Your task to perform on an android device: turn on priority inbox in the gmail app Image 0: 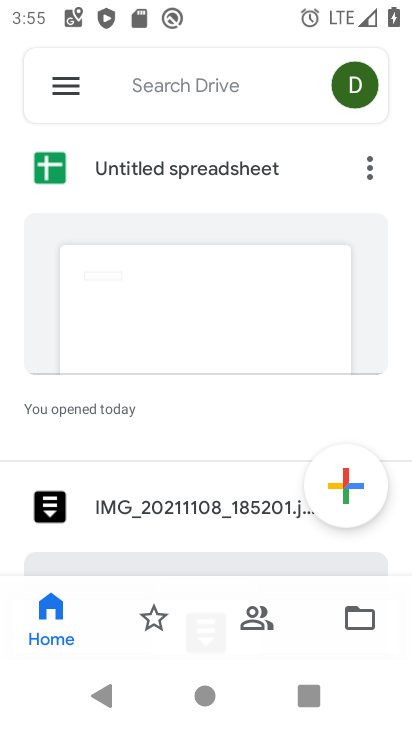
Step 0: press home button
Your task to perform on an android device: turn on priority inbox in the gmail app Image 1: 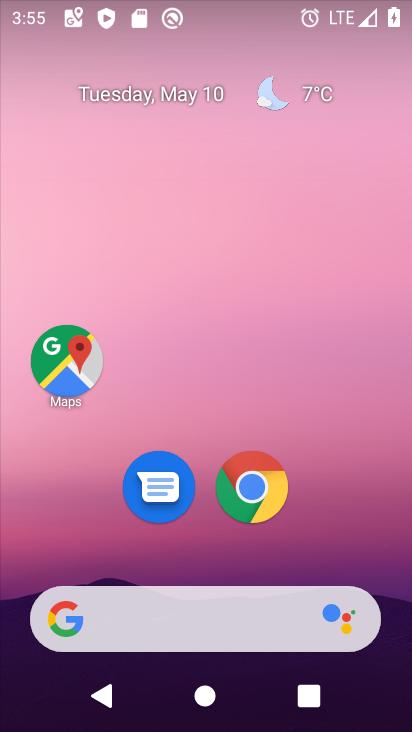
Step 1: drag from (328, 535) to (313, 161)
Your task to perform on an android device: turn on priority inbox in the gmail app Image 2: 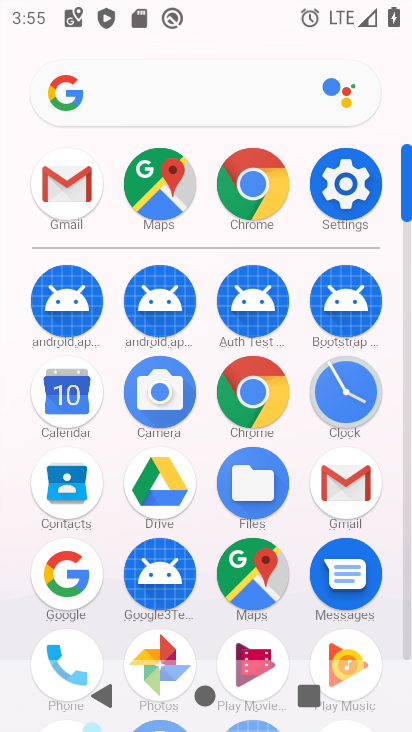
Step 2: click (77, 173)
Your task to perform on an android device: turn on priority inbox in the gmail app Image 3: 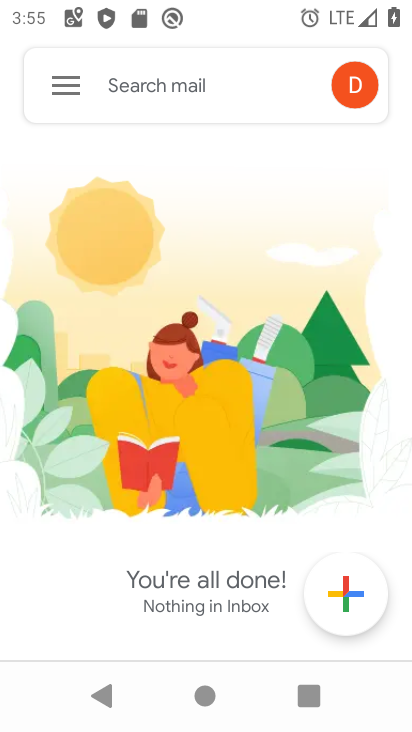
Step 3: click (65, 78)
Your task to perform on an android device: turn on priority inbox in the gmail app Image 4: 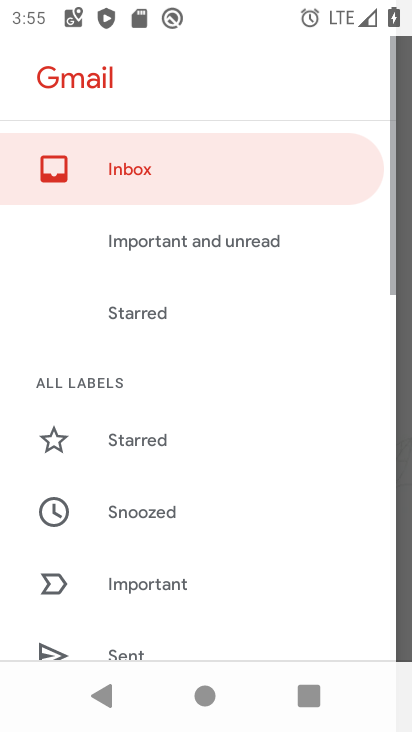
Step 4: drag from (97, 555) to (247, 135)
Your task to perform on an android device: turn on priority inbox in the gmail app Image 5: 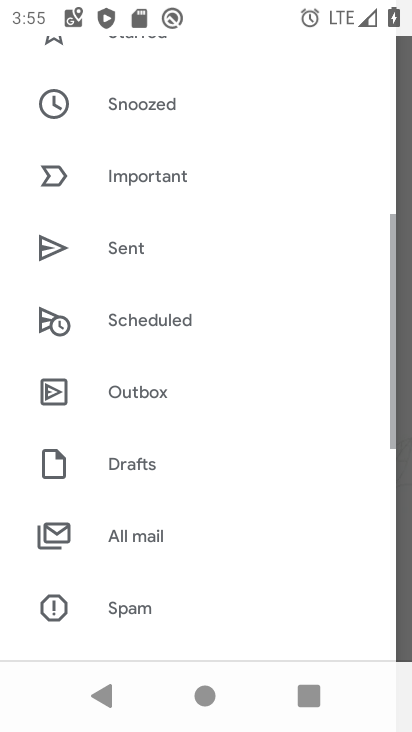
Step 5: drag from (204, 537) to (308, 181)
Your task to perform on an android device: turn on priority inbox in the gmail app Image 6: 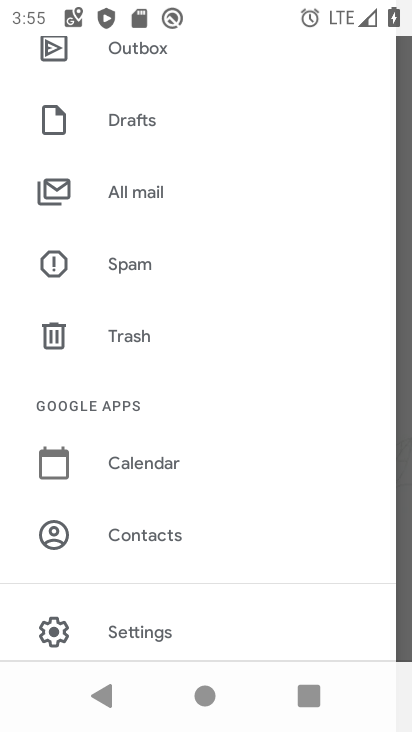
Step 6: drag from (255, 539) to (295, 195)
Your task to perform on an android device: turn on priority inbox in the gmail app Image 7: 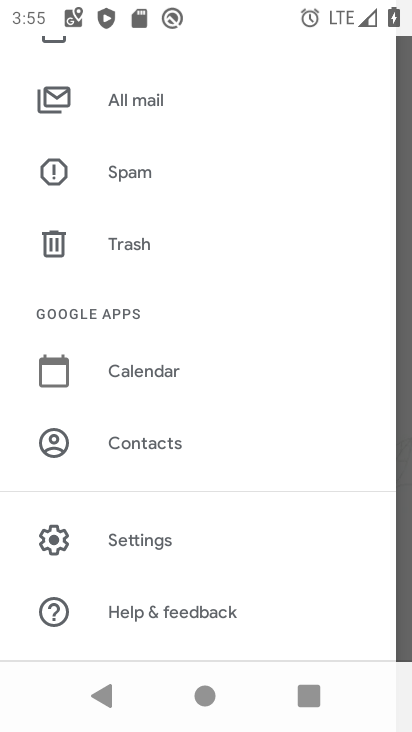
Step 7: click (187, 533)
Your task to perform on an android device: turn on priority inbox in the gmail app Image 8: 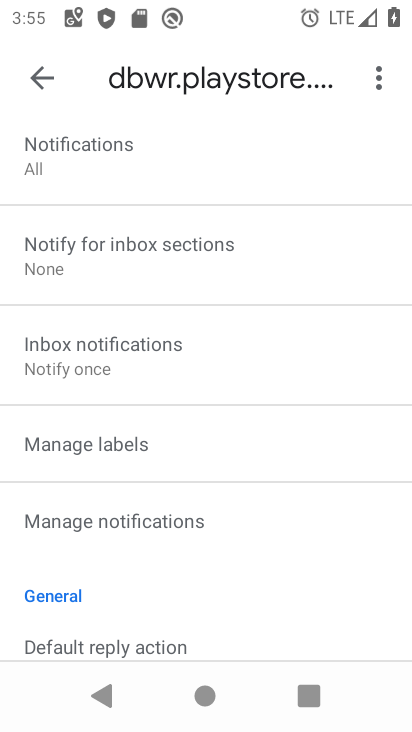
Step 8: drag from (175, 584) to (188, 286)
Your task to perform on an android device: turn on priority inbox in the gmail app Image 9: 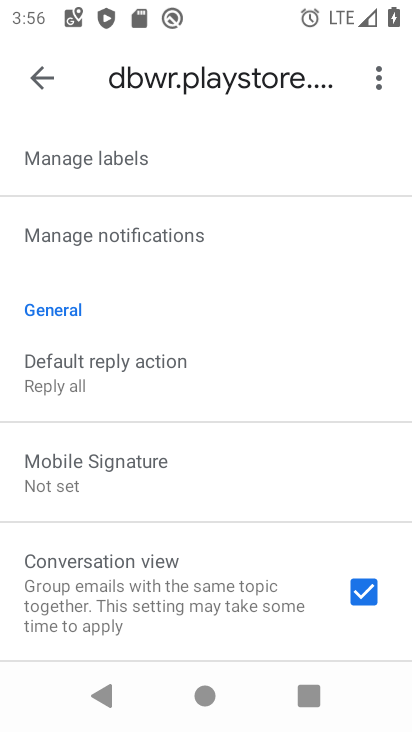
Step 9: drag from (191, 595) to (267, 153)
Your task to perform on an android device: turn on priority inbox in the gmail app Image 10: 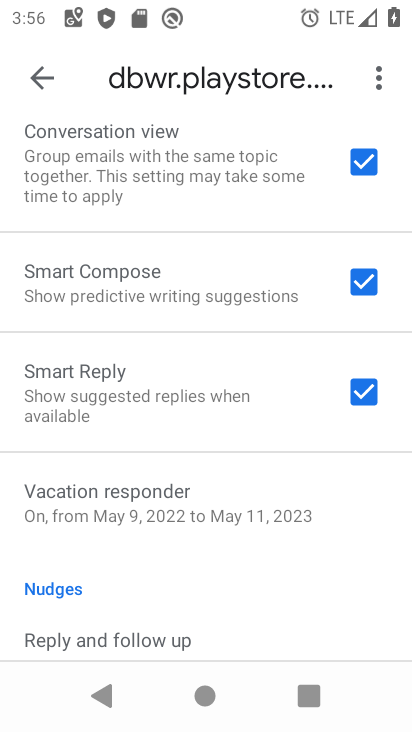
Step 10: drag from (183, 544) to (169, 718)
Your task to perform on an android device: turn on priority inbox in the gmail app Image 11: 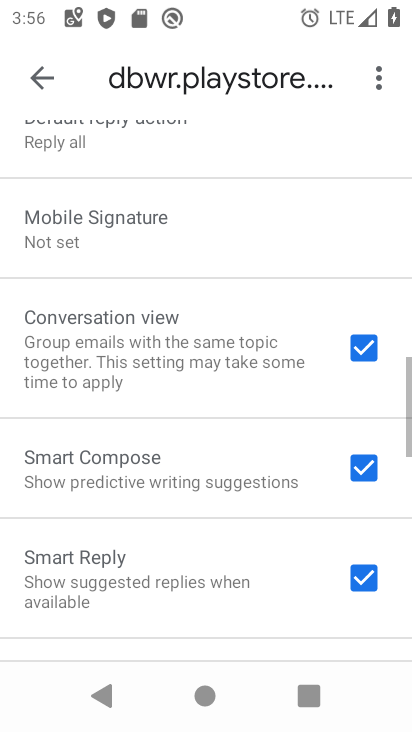
Step 11: drag from (193, 268) to (153, 730)
Your task to perform on an android device: turn on priority inbox in the gmail app Image 12: 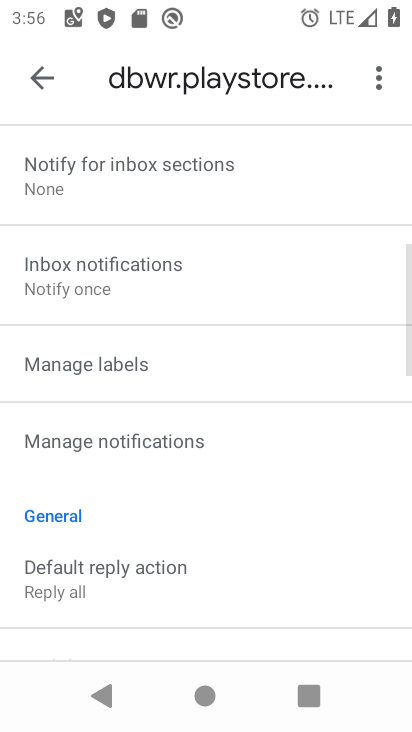
Step 12: drag from (206, 265) to (237, 728)
Your task to perform on an android device: turn on priority inbox in the gmail app Image 13: 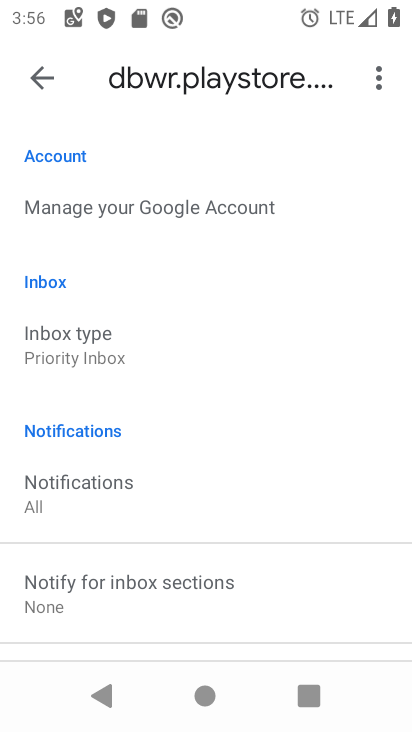
Step 13: click (94, 360)
Your task to perform on an android device: turn on priority inbox in the gmail app Image 14: 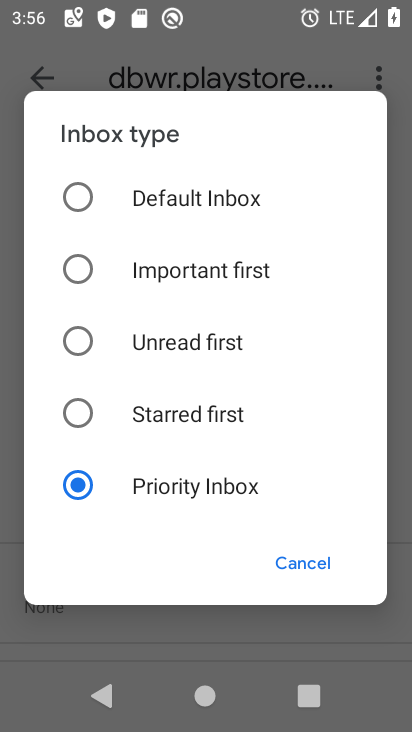
Step 14: task complete